Your task to perform on an android device: Search for "razer blade" on amazon.com, select the first entry, add it to the cart, then select checkout. Image 0: 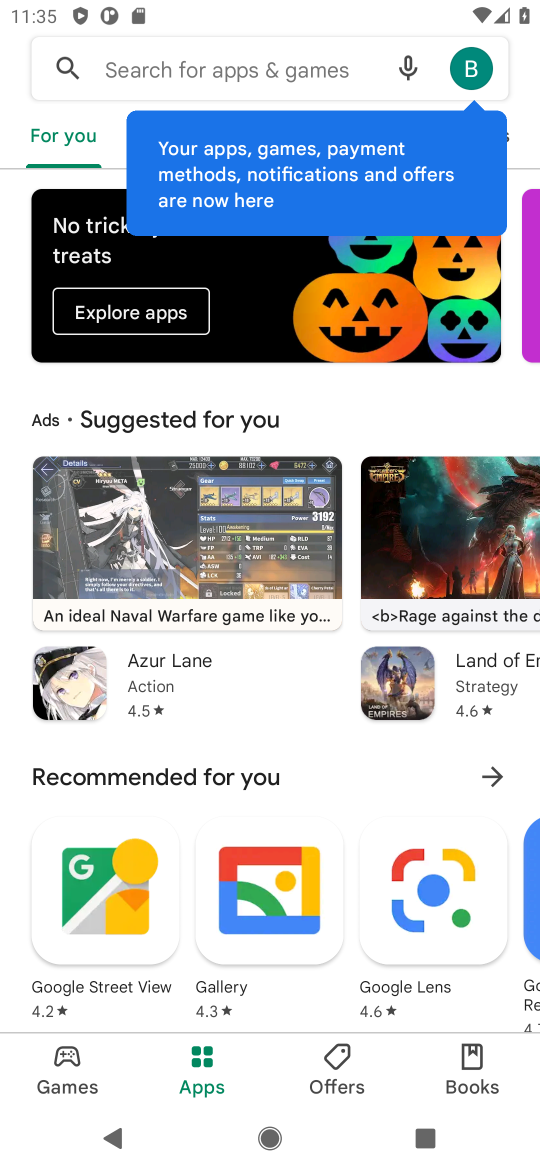
Step 0: click (111, 70)
Your task to perform on an android device: Search for "razer blade" on amazon.com, select the first entry, add it to the cart, then select checkout. Image 1: 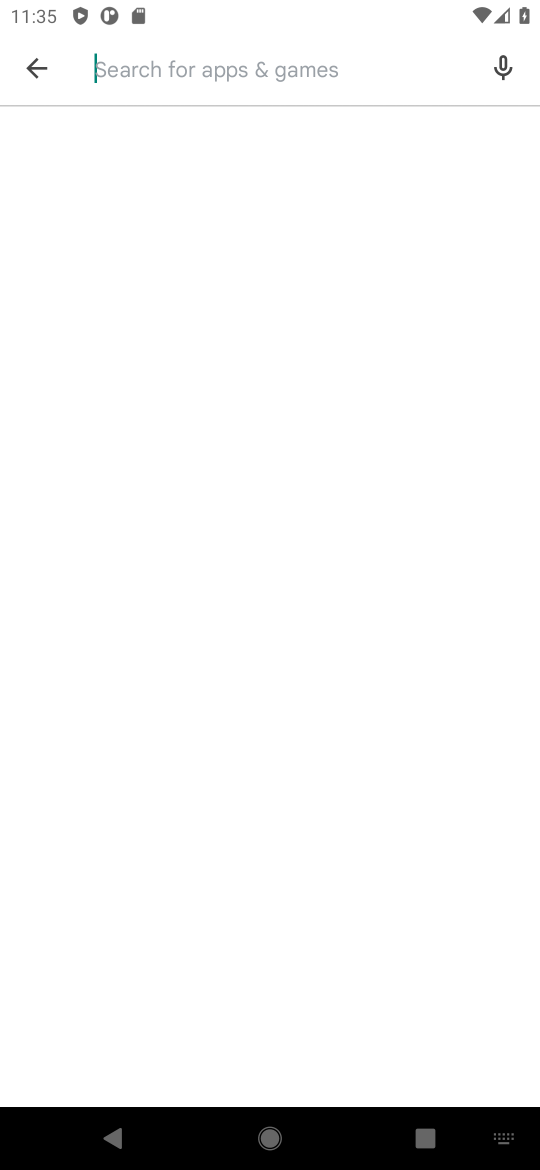
Step 1: type "amazon.com"
Your task to perform on an android device: Search for "razer blade" on amazon.com, select the first entry, add it to the cart, then select checkout. Image 2: 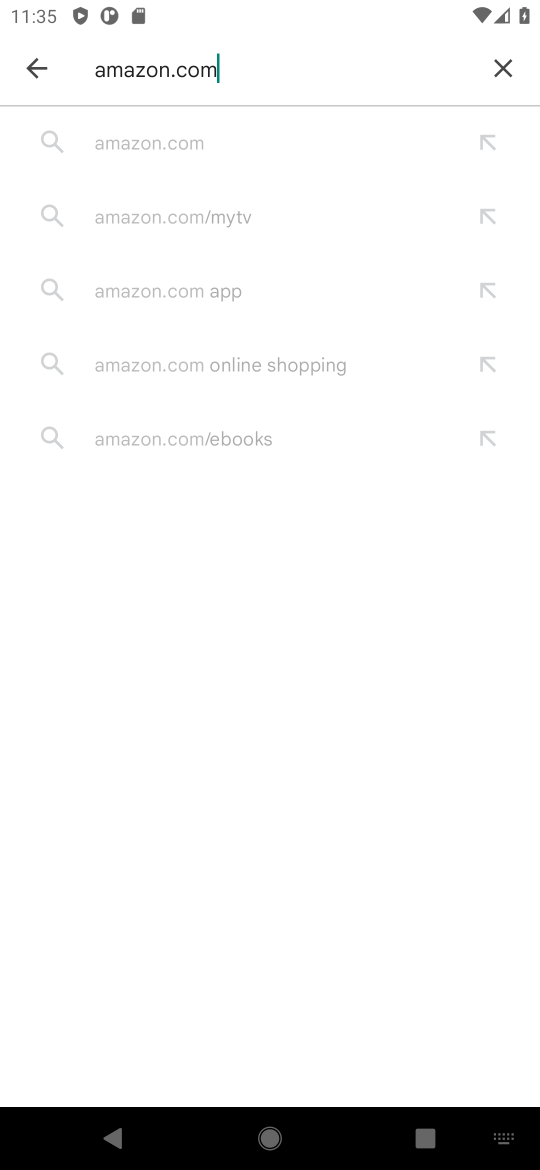
Step 2: type ""
Your task to perform on an android device: Search for "razer blade" on amazon.com, select the first entry, add it to the cart, then select checkout. Image 3: 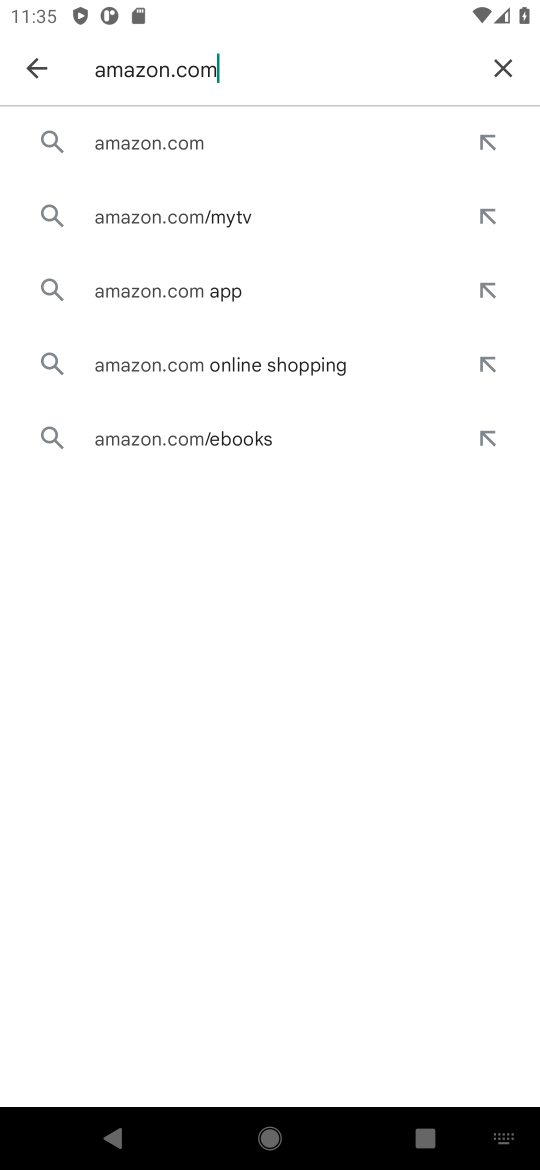
Step 3: click (160, 142)
Your task to perform on an android device: Search for "razer blade" on amazon.com, select the first entry, add it to the cart, then select checkout. Image 4: 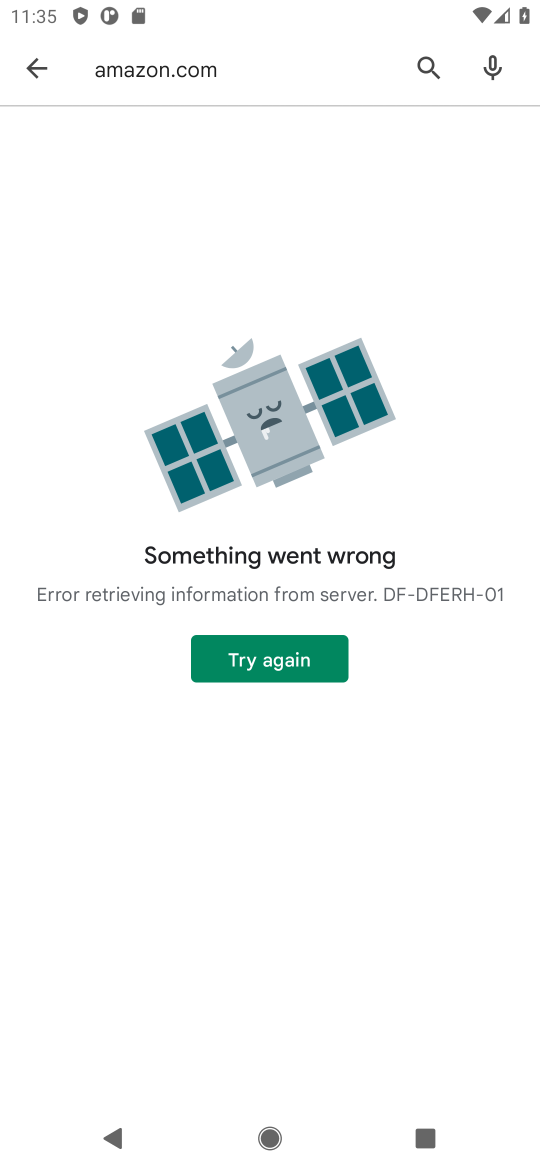
Step 4: press back button
Your task to perform on an android device: Search for "razer blade" on amazon.com, select the first entry, add it to the cart, then select checkout. Image 5: 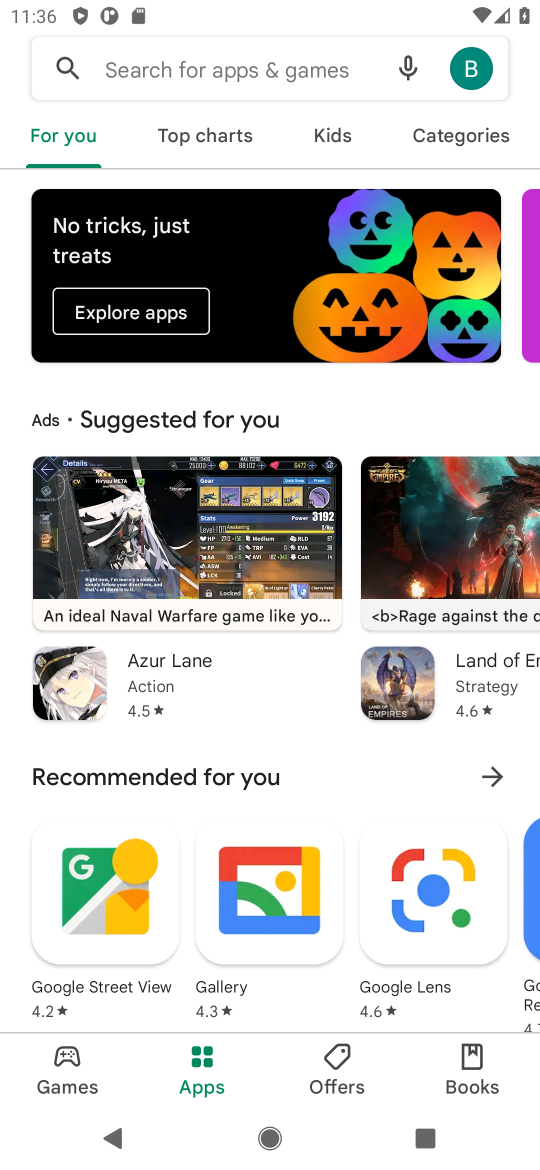
Step 5: press home button
Your task to perform on an android device: Search for "razer blade" on amazon.com, select the first entry, add it to the cart, then select checkout. Image 6: 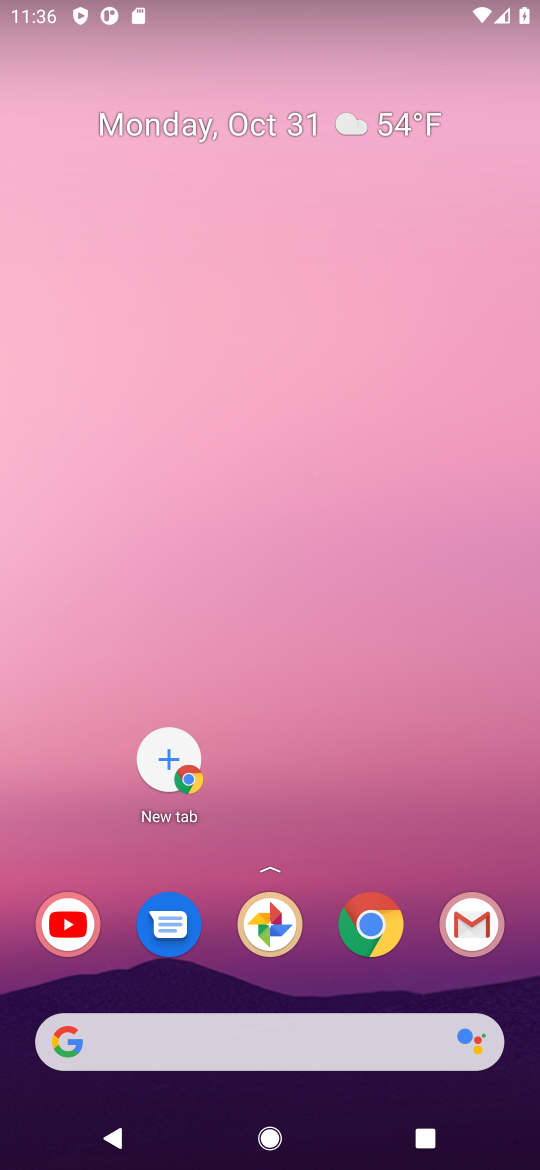
Step 6: click (369, 929)
Your task to perform on an android device: Search for "razer blade" on amazon.com, select the first entry, add it to the cart, then select checkout. Image 7: 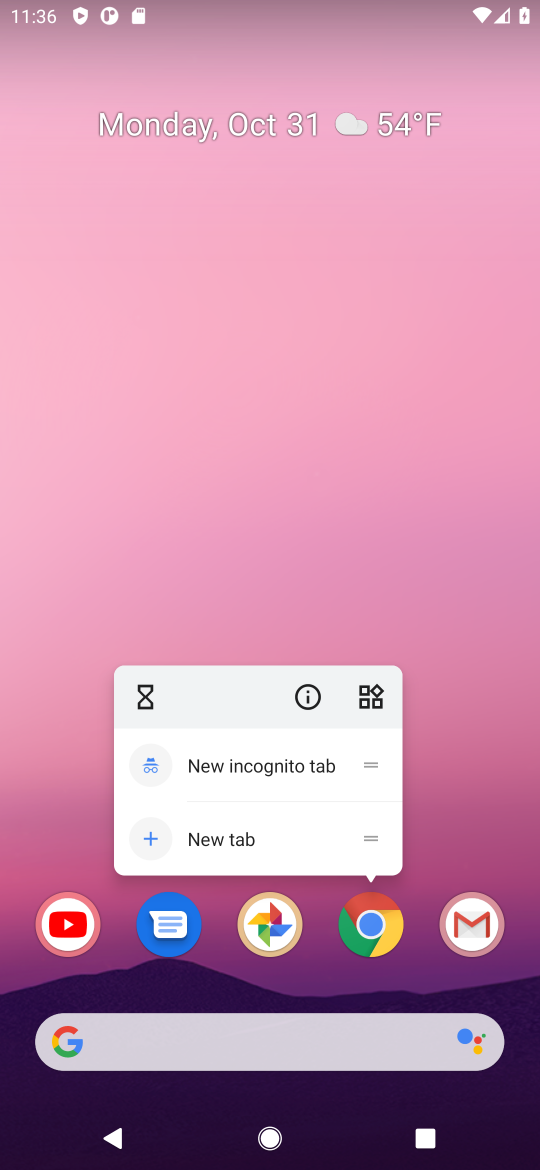
Step 7: click (371, 943)
Your task to perform on an android device: Search for "razer blade" on amazon.com, select the first entry, add it to the cart, then select checkout. Image 8: 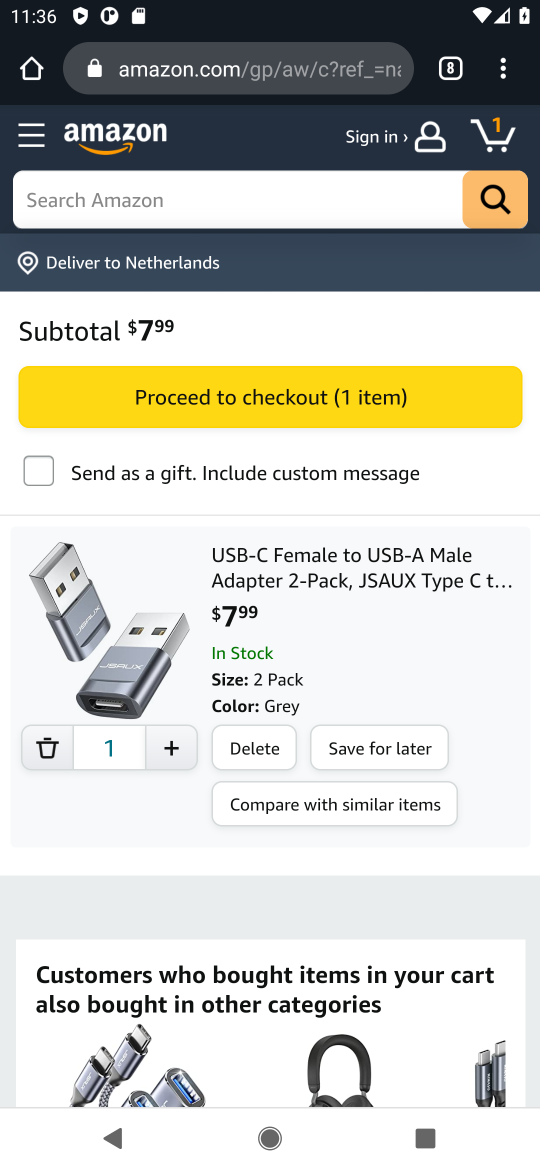
Step 8: click (284, 194)
Your task to perform on an android device: Search for "razer blade" on amazon.com, select the first entry, add it to the cart, then select checkout. Image 9: 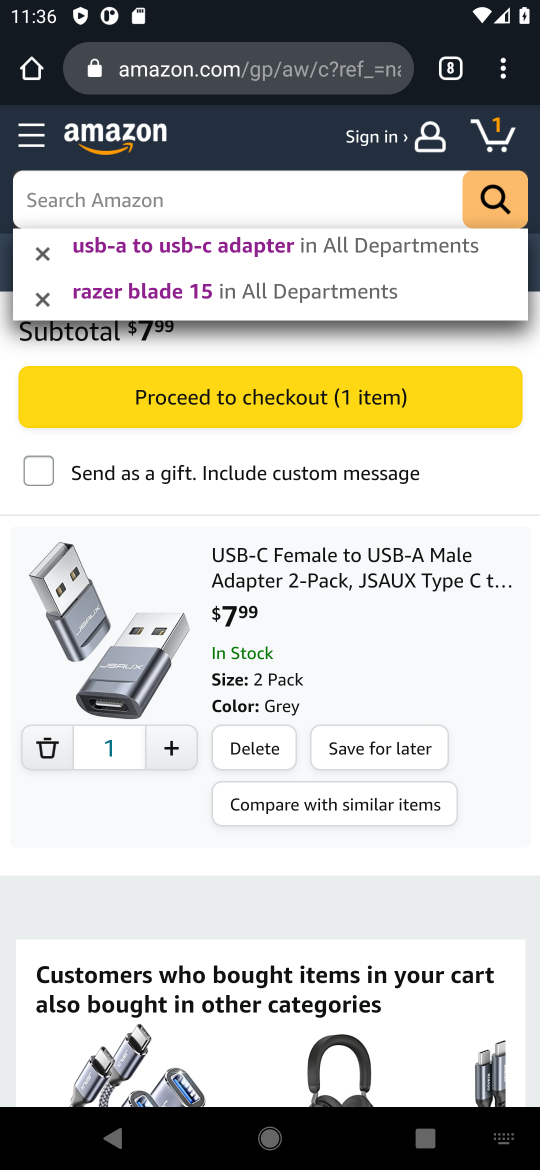
Step 9: type "razer  blade"
Your task to perform on an android device: Search for "razer blade" on amazon.com, select the first entry, add it to the cart, then select checkout. Image 10: 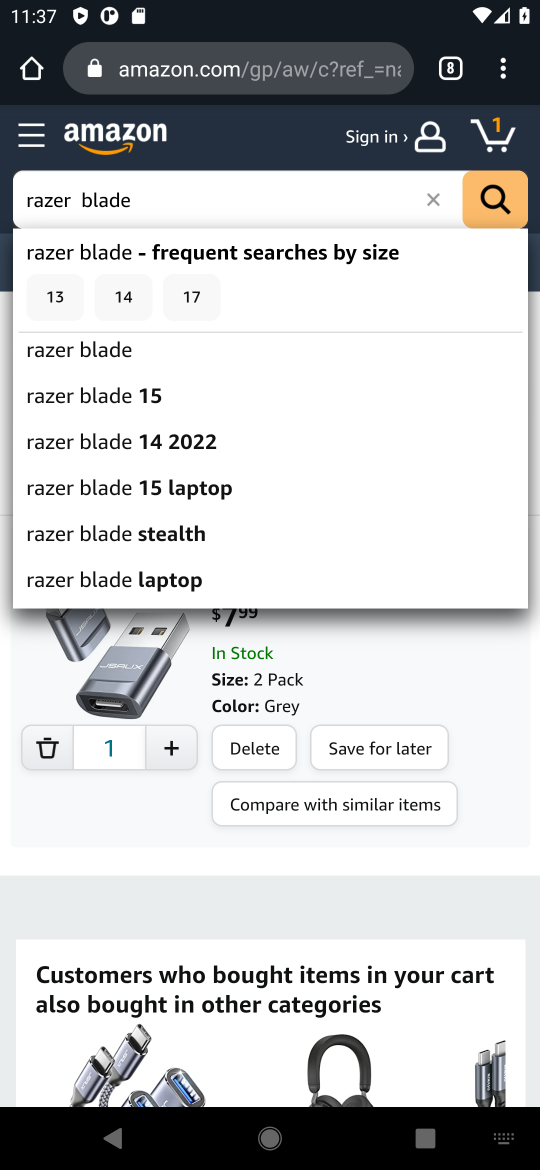
Step 10: click (105, 348)
Your task to perform on an android device: Search for "razer blade" on amazon.com, select the first entry, add it to the cart, then select checkout. Image 11: 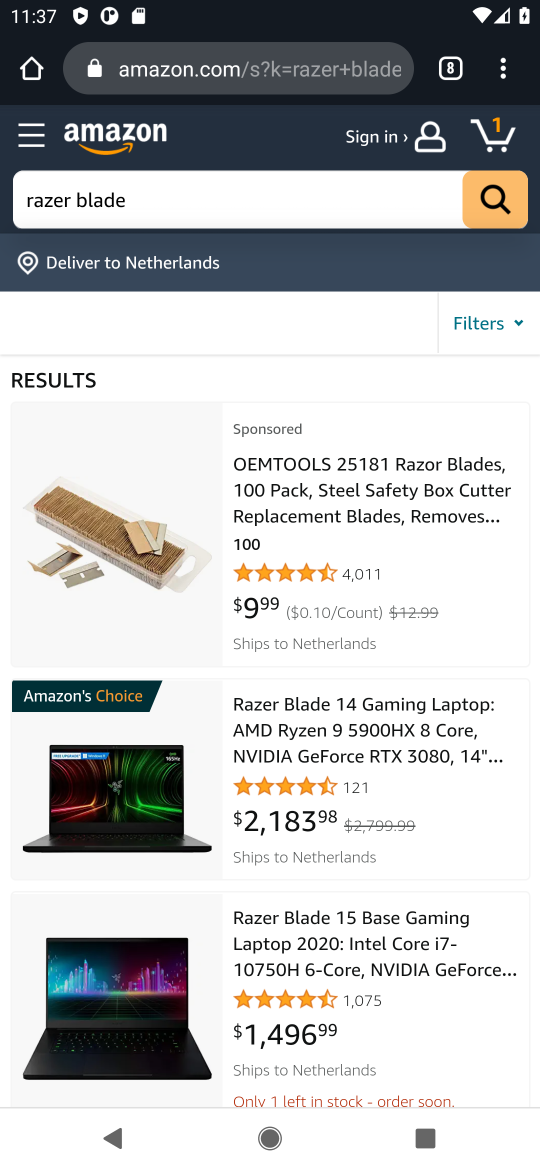
Step 11: click (308, 934)
Your task to perform on an android device: Search for "razer blade" on amazon.com, select the first entry, add it to the cart, then select checkout. Image 12: 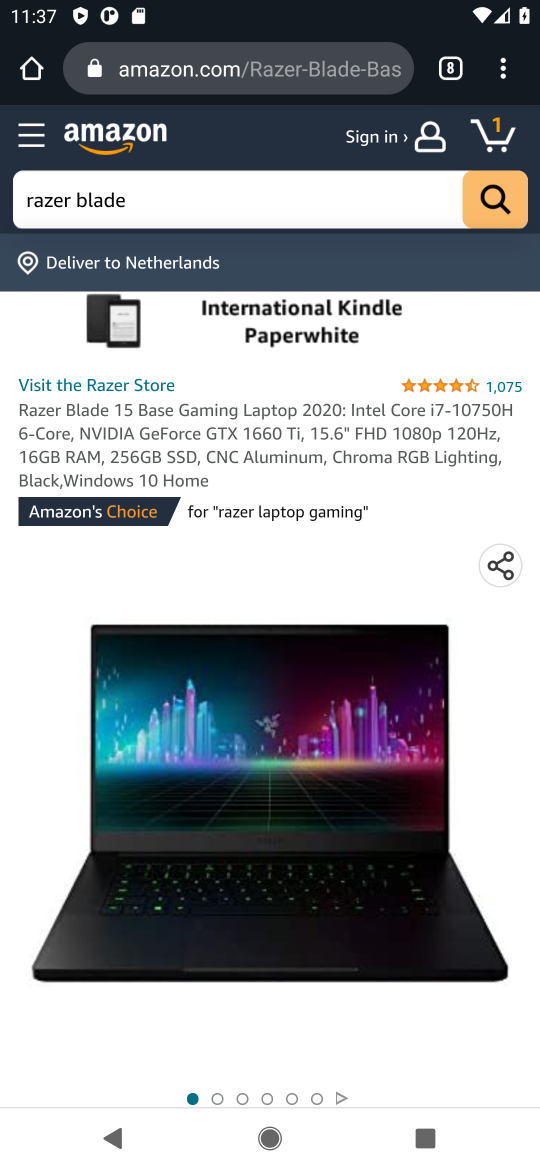
Step 12: drag from (358, 701) to (397, 245)
Your task to perform on an android device: Search for "razer blade" on amazon.com, select the first entry, add it to the cart, then select checkout. Image 13: 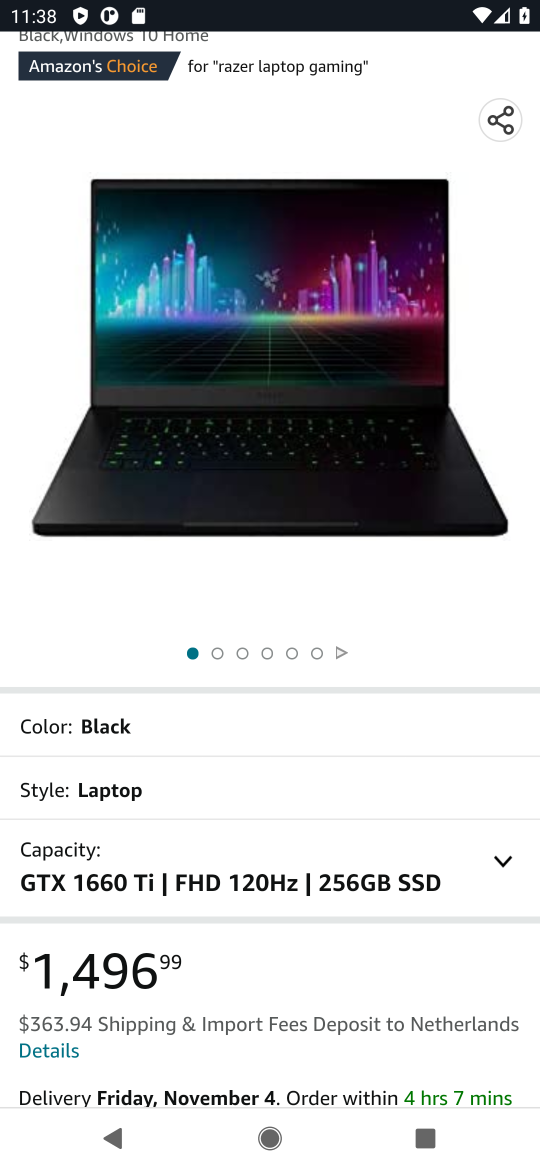
Step 13: drag from (257, 760) to (263, 338)
Your task to perform on an android device: Search for "razer blade" on amazon.com, select the first entry, add it to the cart, then select checkout. Image 14: 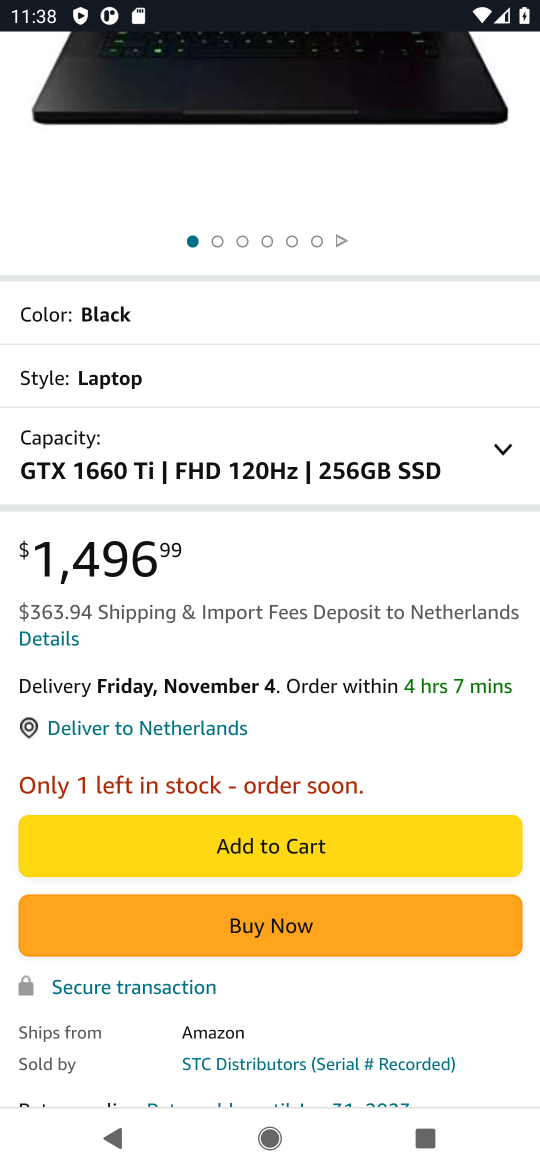
Step 14: click (201, 838)
Your task to perform on an android device: Search for "razer blade" on amazon.com, select the first entry, add it to the cart, then select checkout. Image 15: 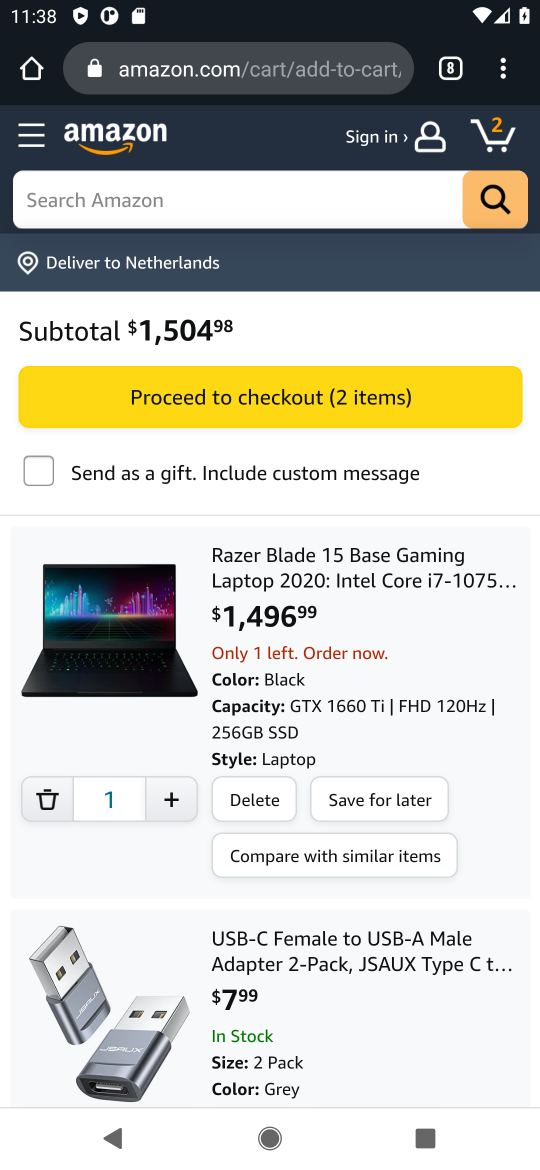
Step 15: click (282, 576)
Your task to perform on an android device: Search for "razer blade" on amazon.com, select the first entry, add it to the cart, then select checkout. Image 16: 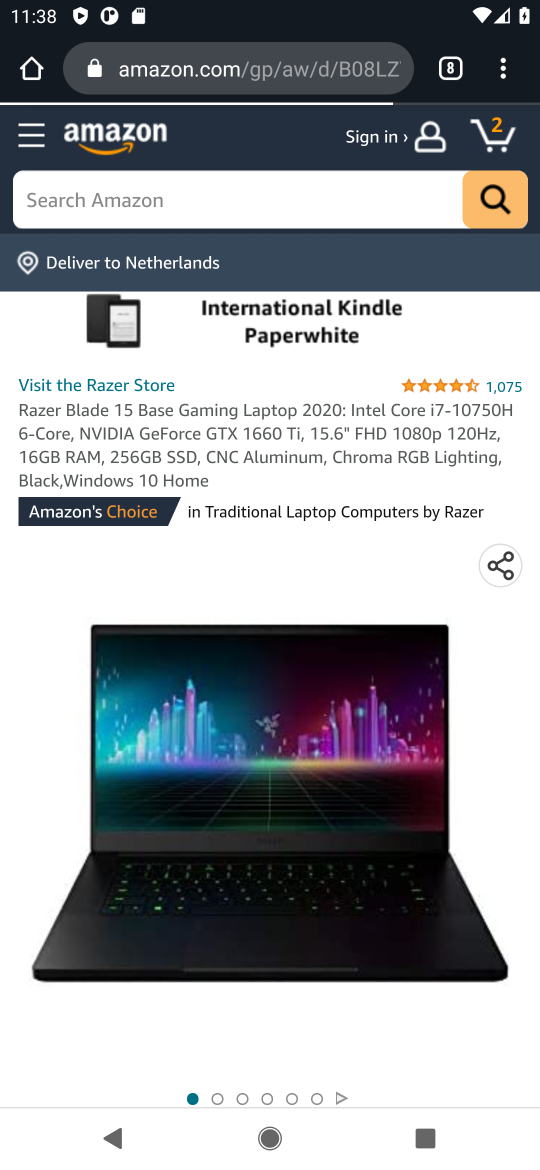
Step 16: drag from (324, 751) to (404, 381)
Your task to perform on an android device: Search for "razer blade" on amazon.com, select the first entry, add it to the cart, then select checkout. Image 17: 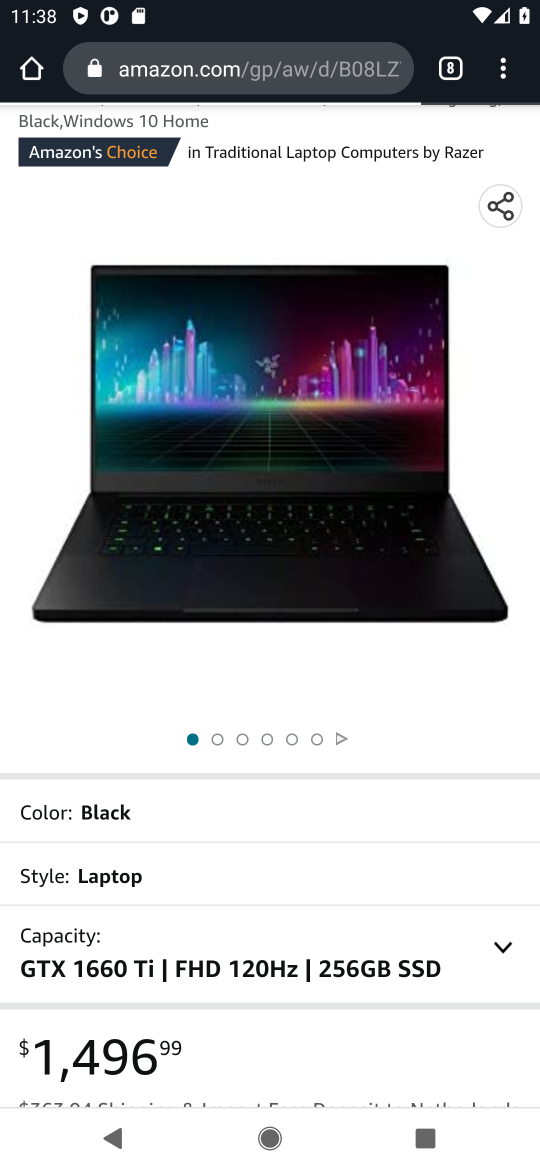
Step 17: drag from (216, 778) to (241, 484)
Your task to perform on an android device: Search for "razer blade" on amazon.com, select the first entry, add it to the cart, then select checkout. Image 18: 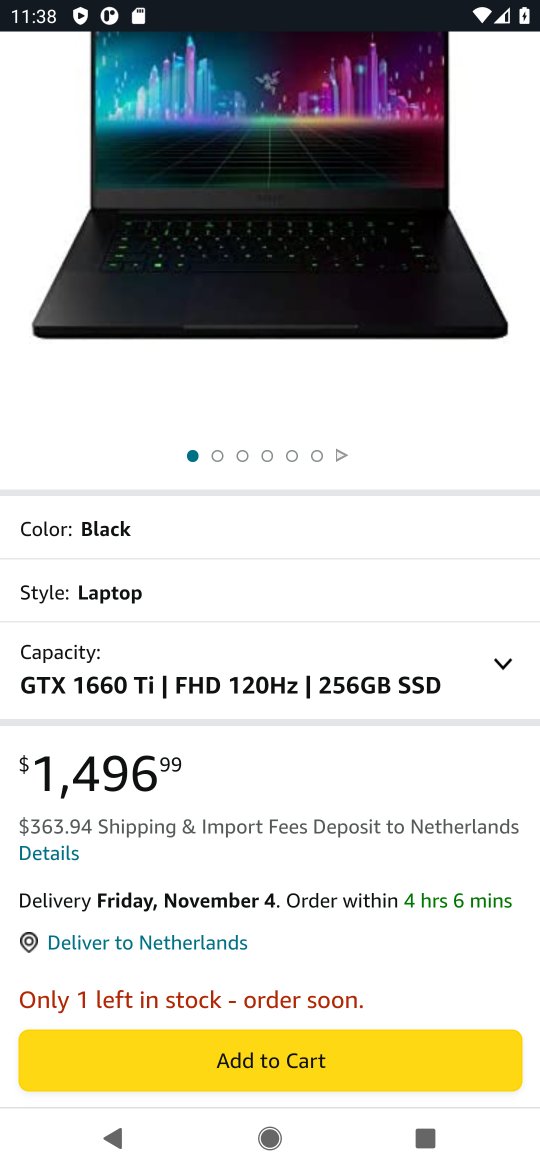
Step 18: click (283, 1070)
Your task to perform on an android device: Search for "razer blade" on amazon.com, select the first entry, add it to the cart, then select checkout. Image 19: 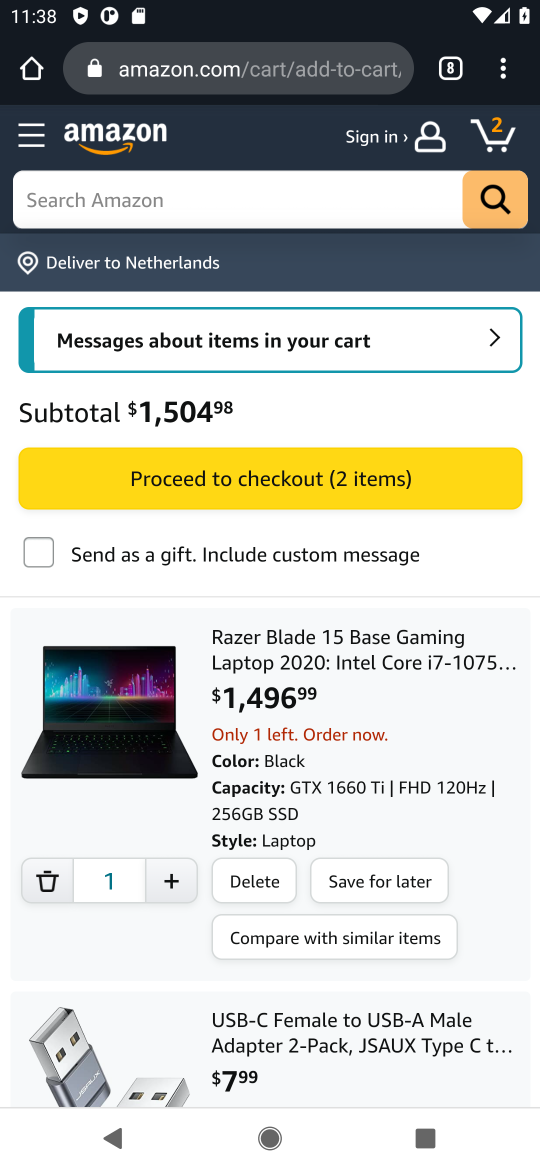
Step 19: click (212, 470)
Your task to perform on an android device: Search for "razer blade" on amazon.com, select the first entry, add it to the cart, then select checkout. Image 20: 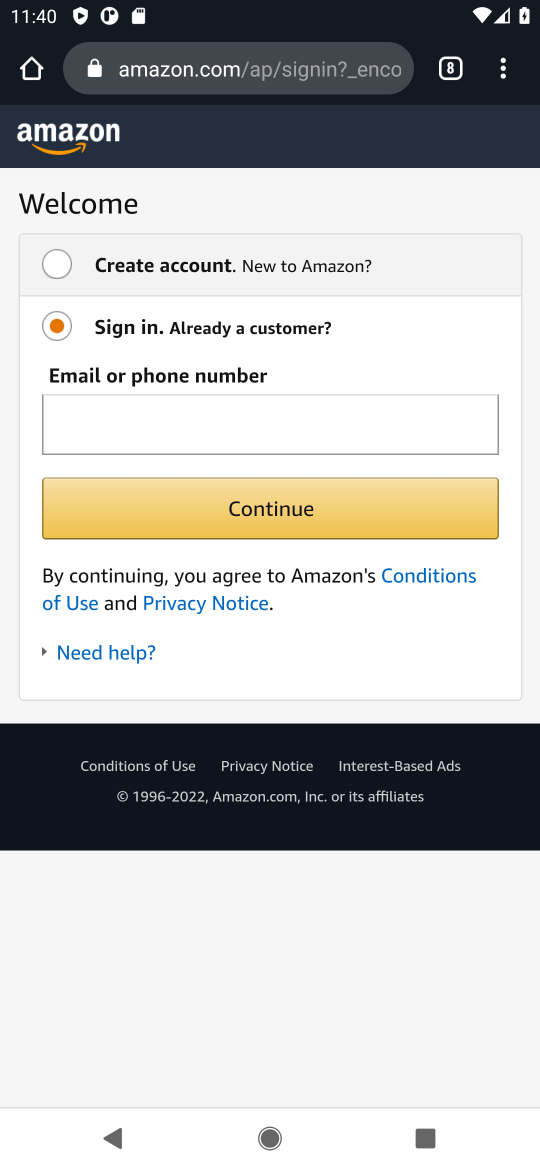
Step 20: task complete